Your task to perform on an android device: clear history in the chrome app Image 0: 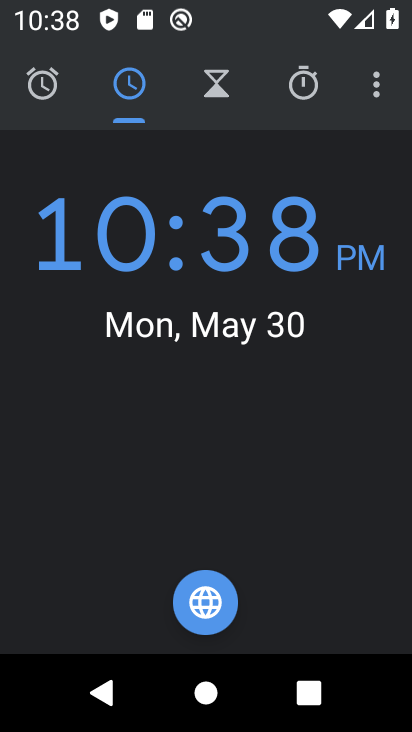
Step 0: press home button
Your task to perform on an android device: clear history in the chrome app Image 1: 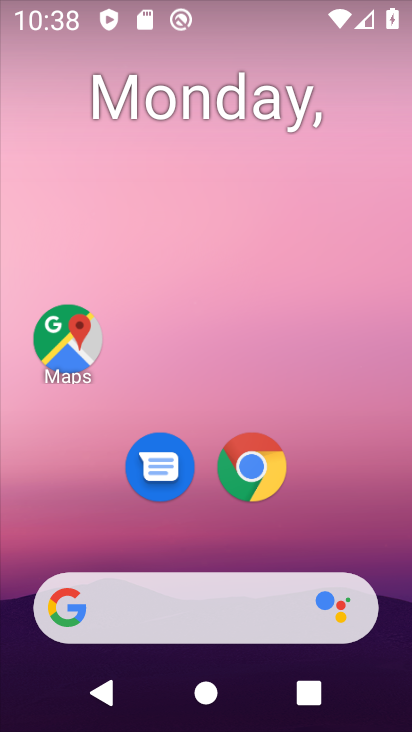
Step 1: click (271, 480)
Your task to perform on an android device: clear history in the chrome app Image 2: 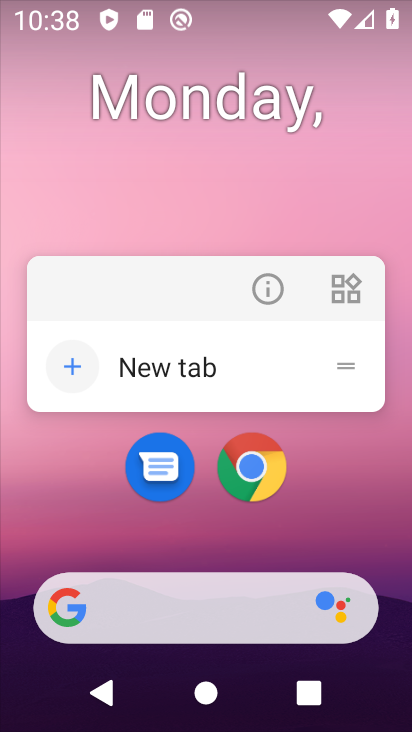
Step 2: click (264, 479)
Your task to perform on an android device: clear history in the chrome app Image 3: 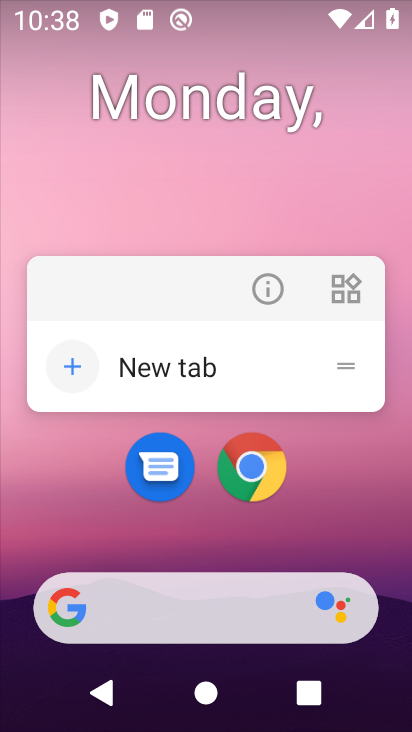
Step 3: click (250, 482)
Your task to perform on an android device: clear history in the chrome app Image 4: 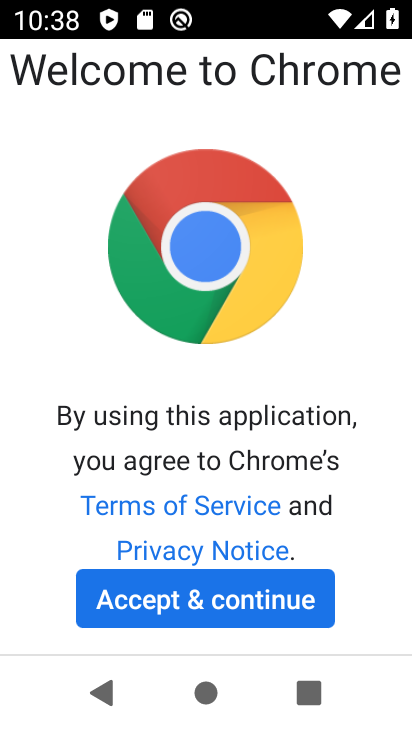
Step 4: click (303, 587)
Your task to perform on an android device: clear history in the chrome app Image 5: 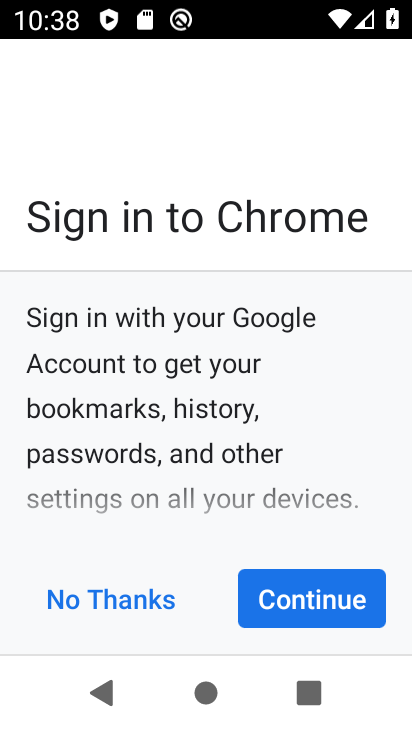
Step 5: click (324, 589)
Your task to perform on an android device: clear history in the chrome app Image 6: 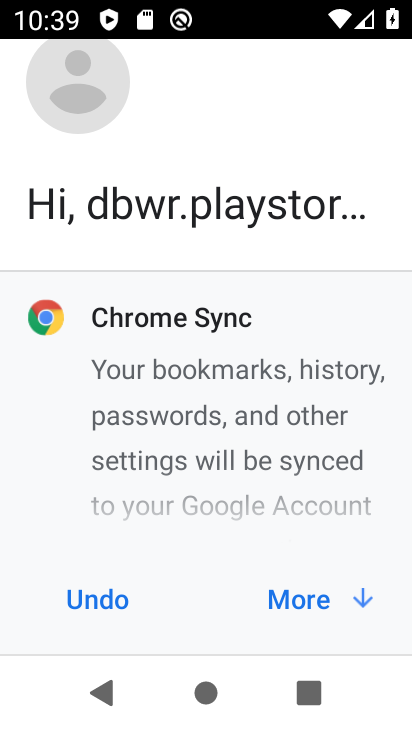
Step 6: click (332, 606)
Your task to perform on an android device: clear history in the chrome app Image 7: 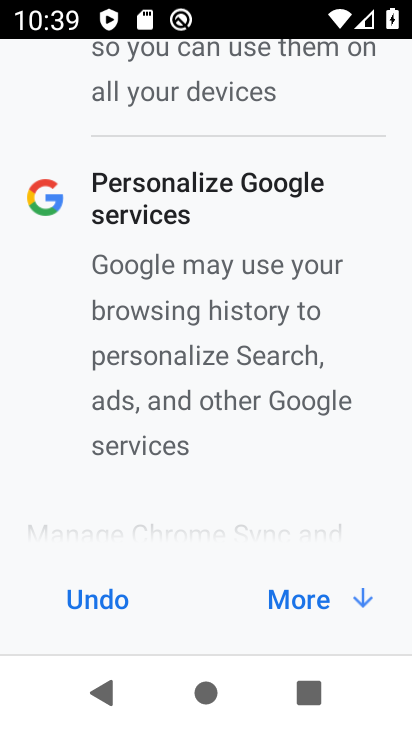
Step 7: click (333, 595)
Your task to perform on an android device: clear history in the chrome app Image 8: 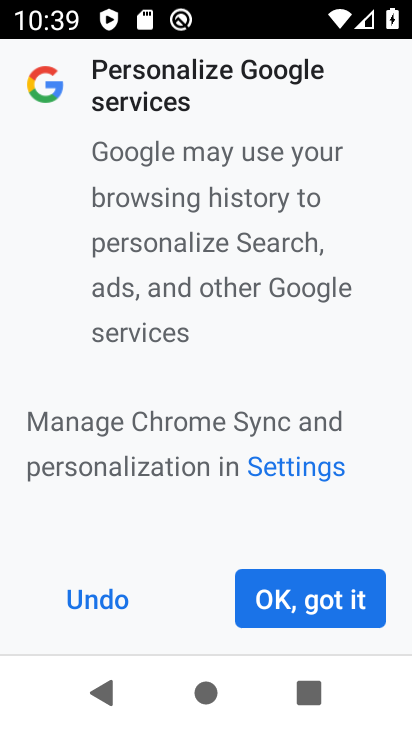
Step 8: click (329, 593)
Your task to perform on an android device: clear history in the chrome app Image 9: 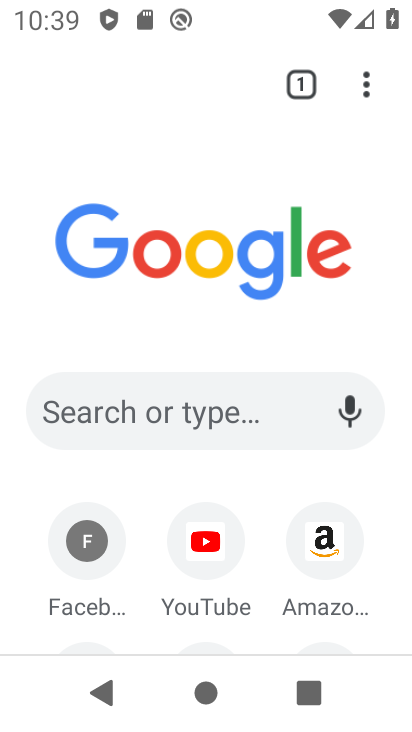
Step 9: drag from (369, 95) to (269, 438)
Your task to perform on an android device: clear history in the chrome app Image 10: 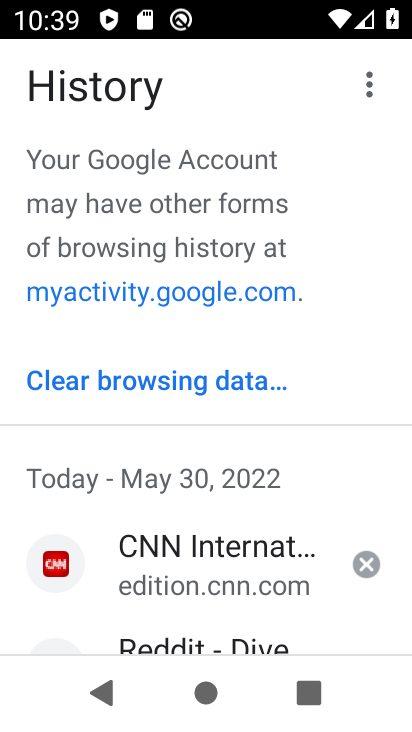
Step 10: click (248, 376)
Your task to perform on an android device: clear history in the chrome app Image 11: 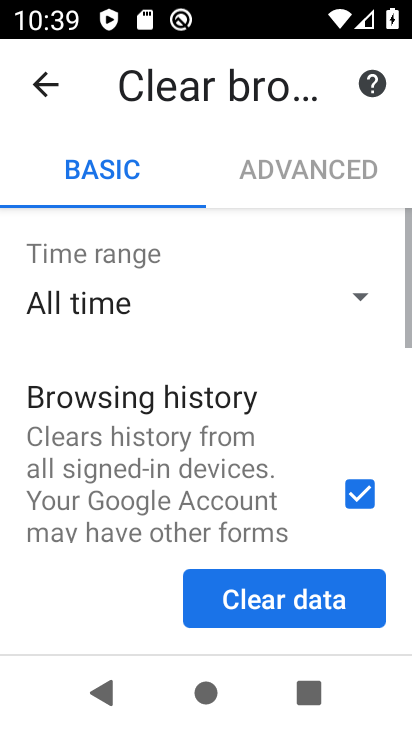
Step 11: click (311, 595)
Your task to perform on an android device: clear history in the chrome app Image 12: 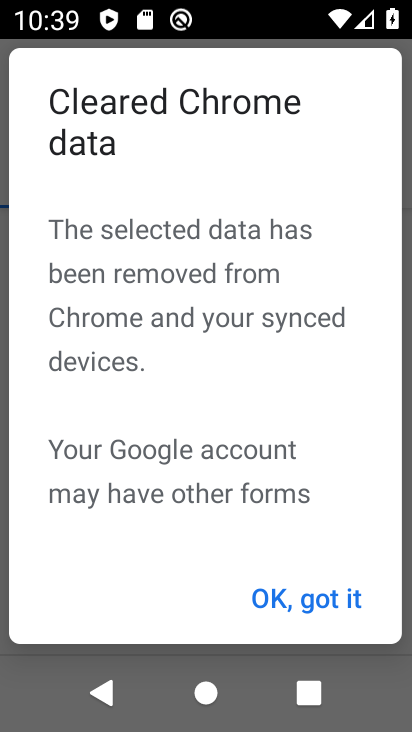
Step 12: click (340, 598)
Your task to perform on an android device: clear history in the chrome app Image 13: 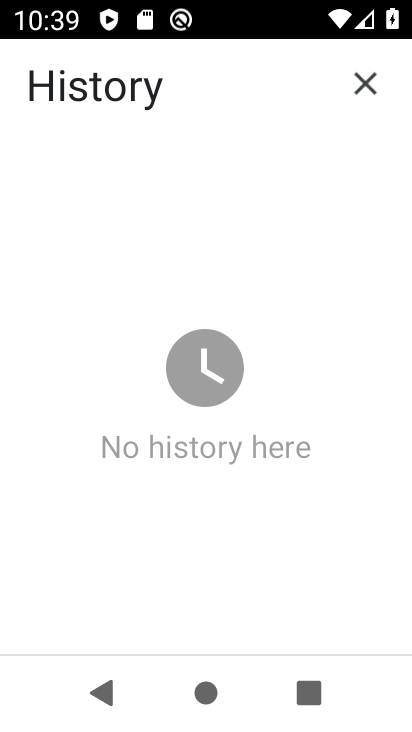
Step 13: task complete